Your task to perform on an android device: View the shopping cart on target. Add "logitech g pro" to the cart on target Image 0: 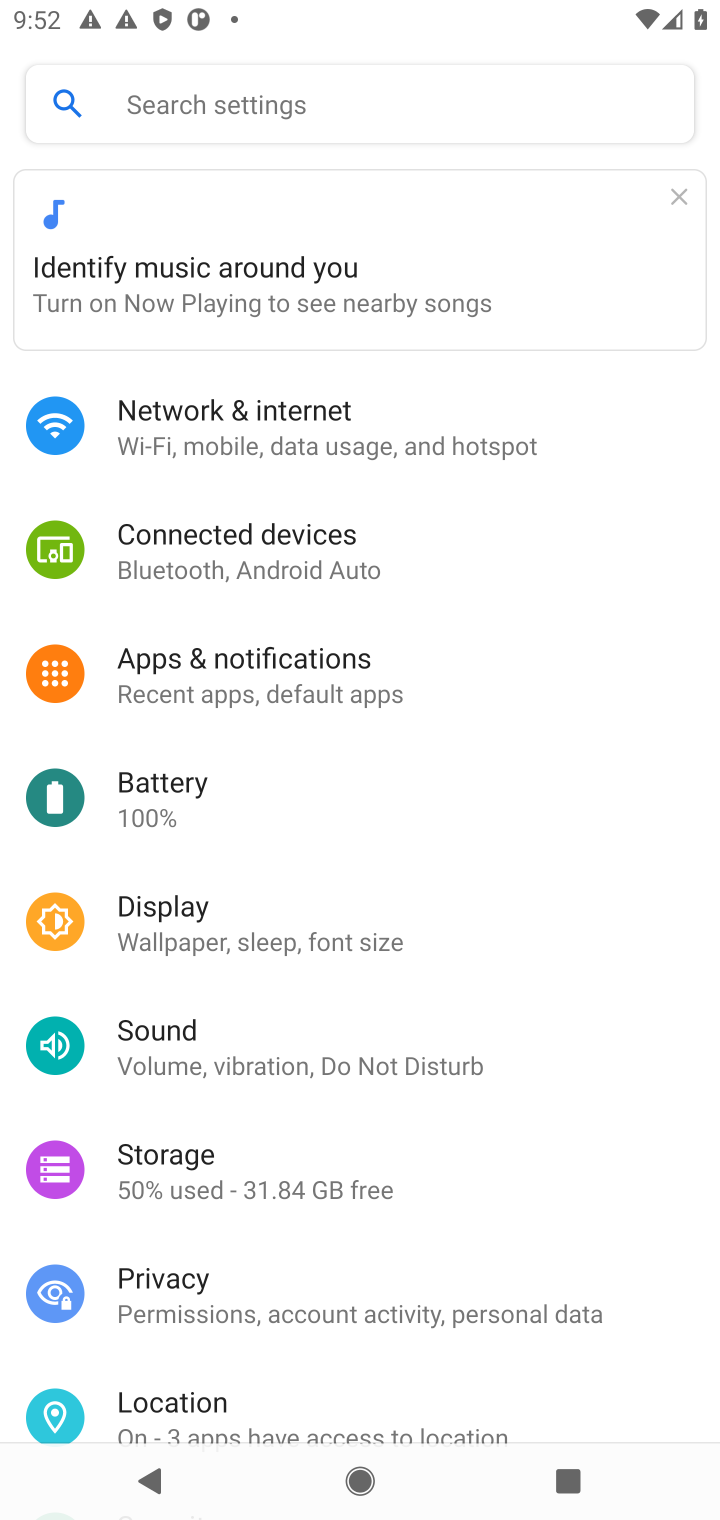
Step 0: press home button
Your task to perform on an android device: View the shopping cart on target. Add "logitech g pro" to the cart on target Image 1: 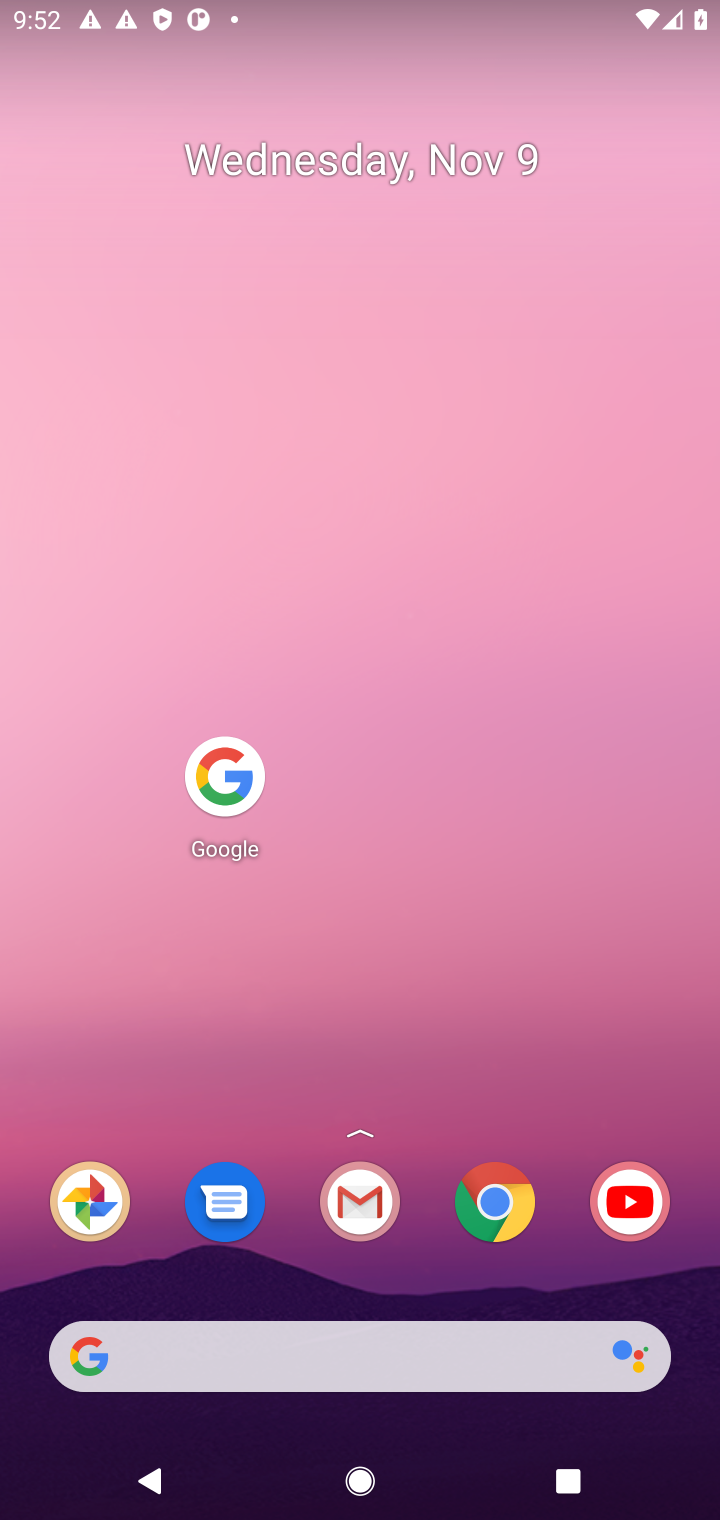
Step 1: click (231, 787)
Your task to perform on an android device: View the shopping cart on target. Add "logitech g pro" to the cart on target Image 2: 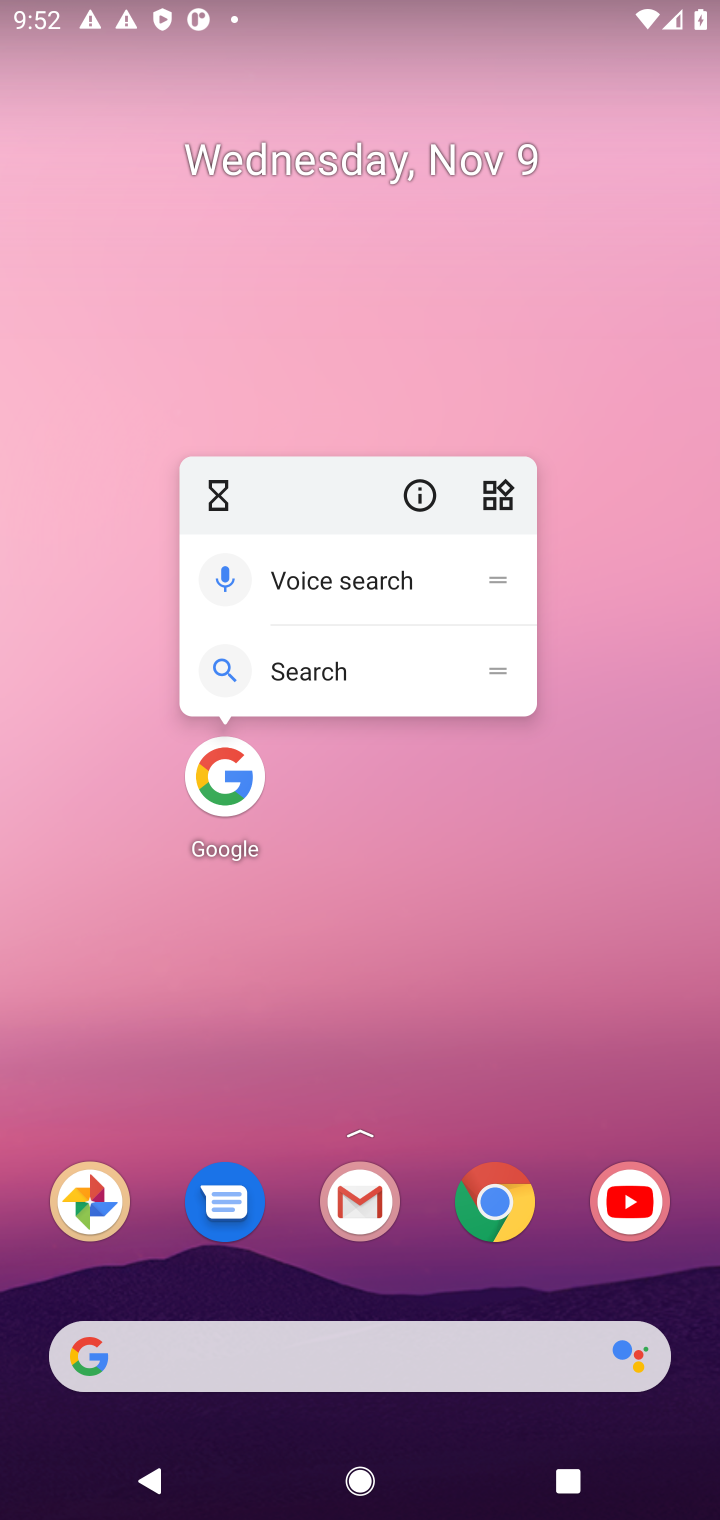
Step 2: click (231, 789)
Your task to perform on an android device: View the shopping cart on target. Add "logitech g pro" to the cart on target Image 3: 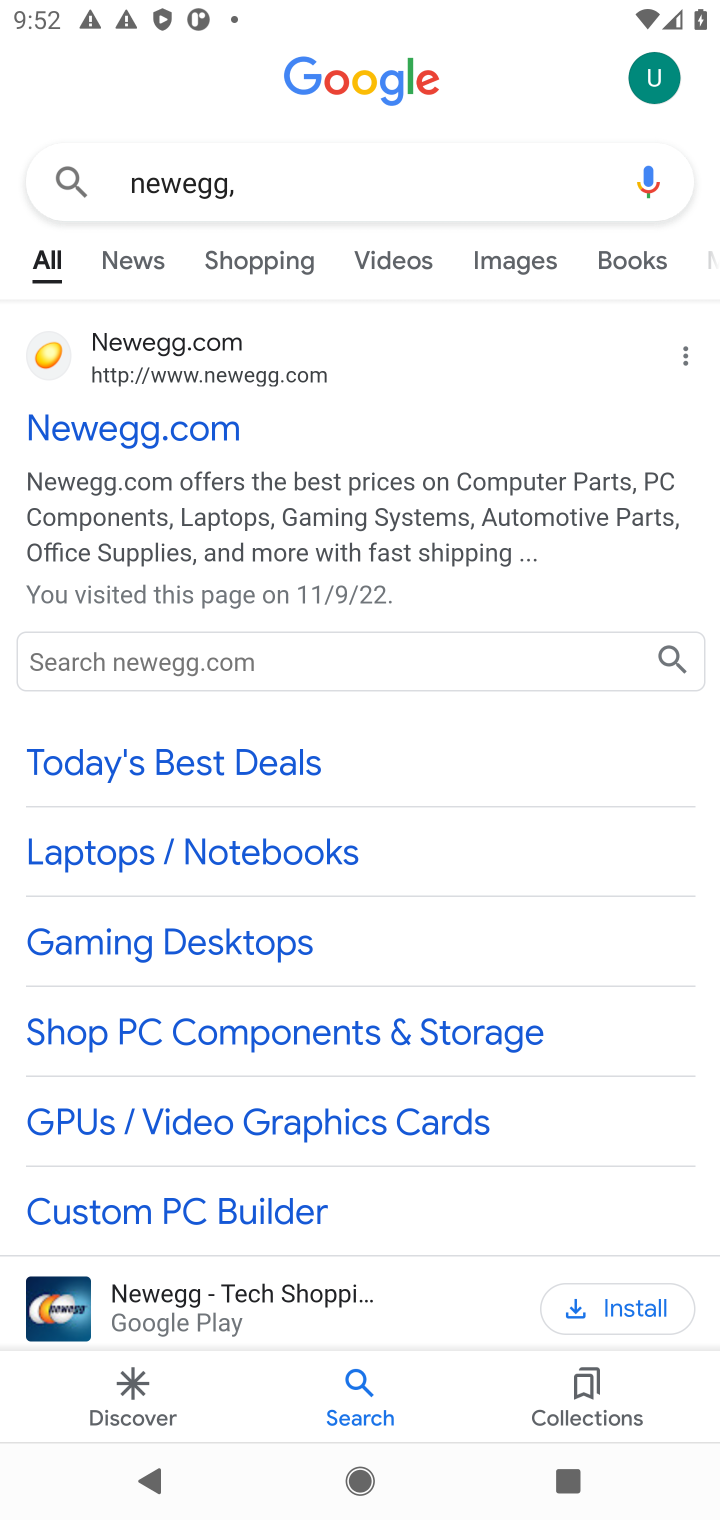
Step 3: click (270, 176)
Your task to perform on an android device: View the shopping cart on target. Add "logitech g pro" to the cart on target Image 4: 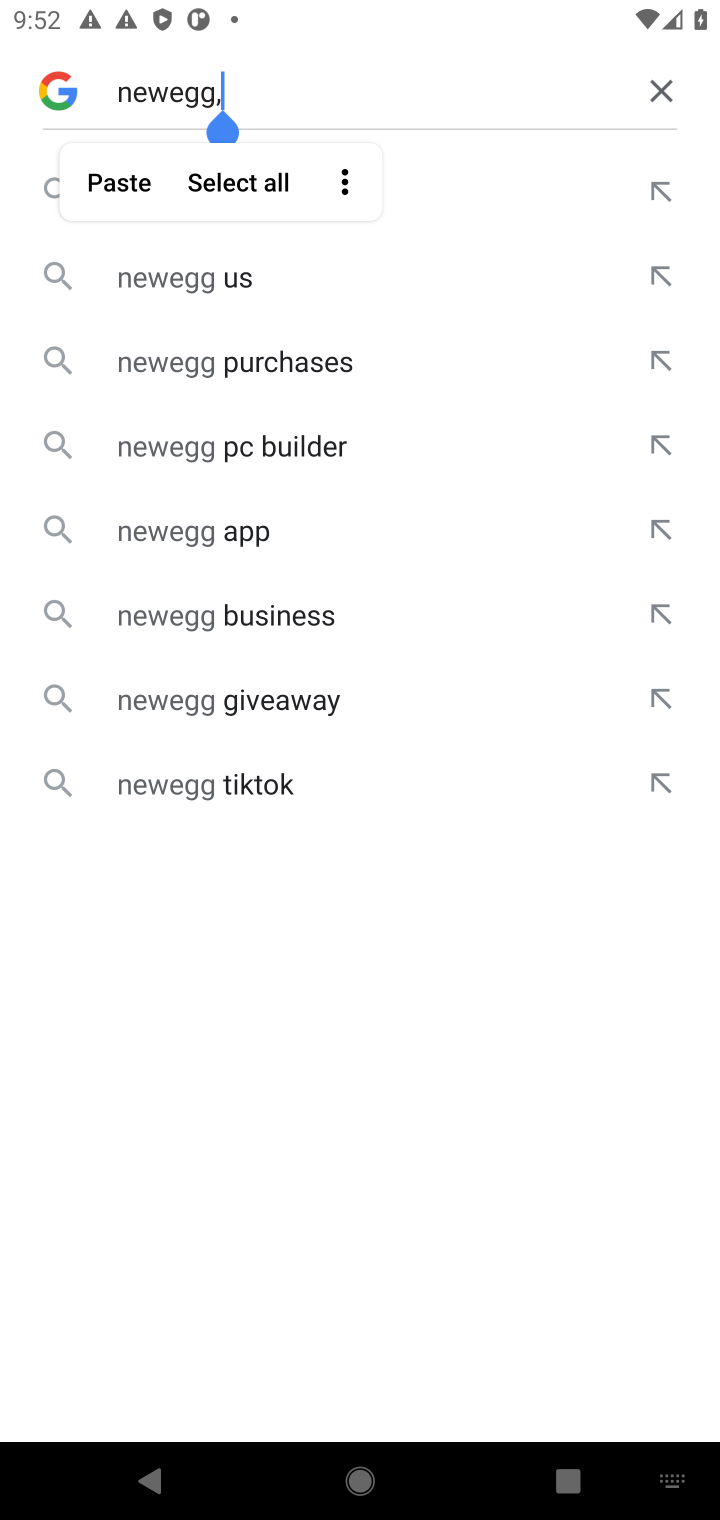
Step 4: click (669, 78)
Your task to perform on an android device: View the shopping cart on target. Add "logitech g pro" to the cart on target Image 5: 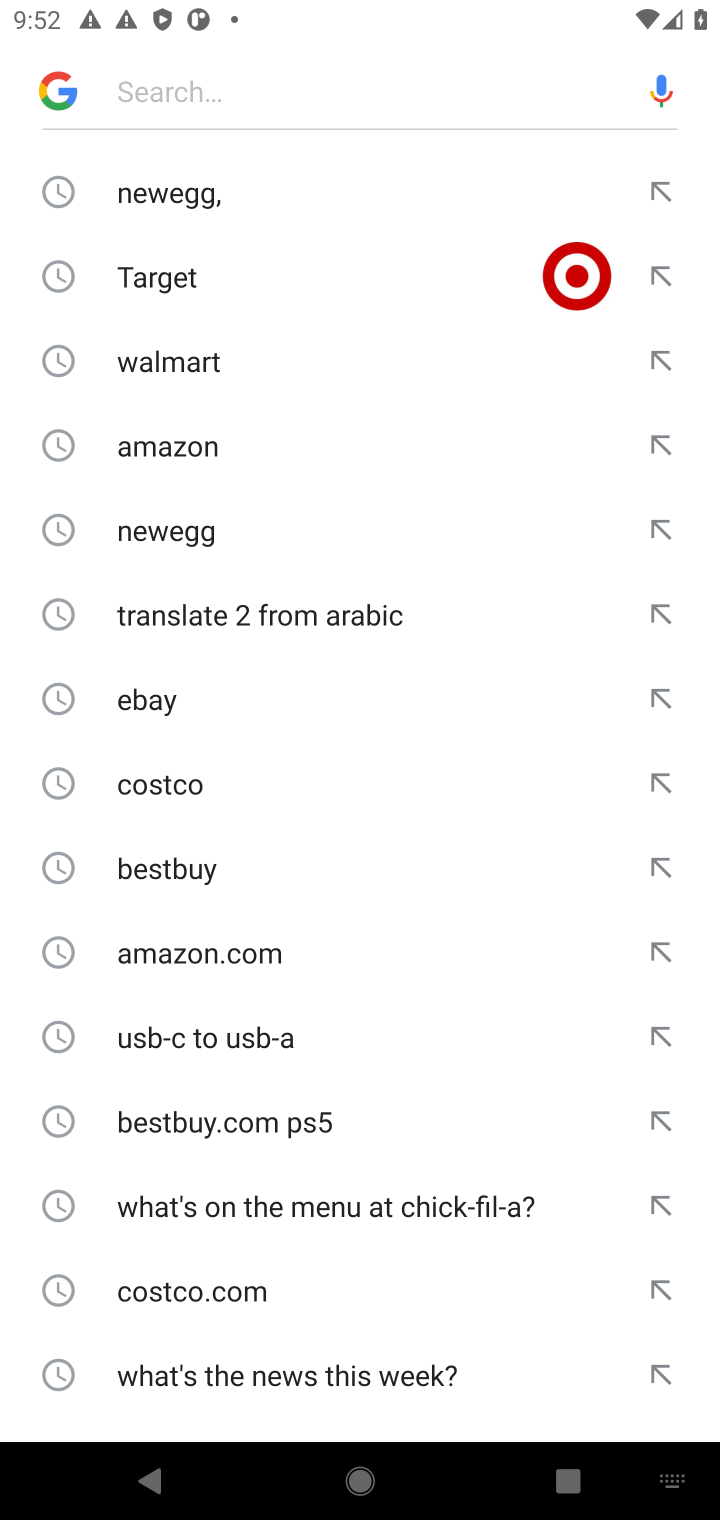
Step 5: click (161, 266)
Your task to perform on an android device: View the shopping cart on target. Add "logitech g pro" to the cart on target Image 6: 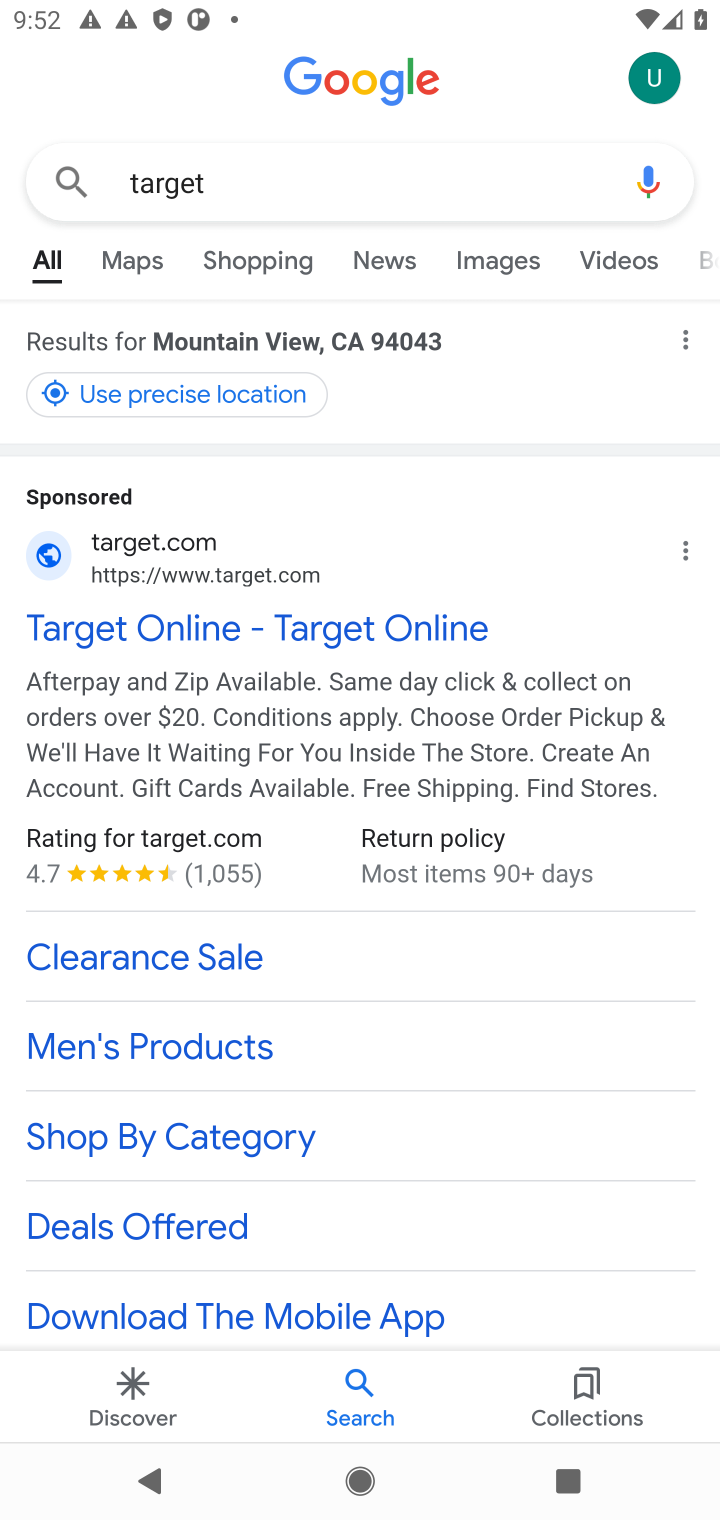
Step 6: click (188, 623)
Your task to perform on an android device: View the shopping cart on target. Add "logitech g pro" to the cart on target Image 7: 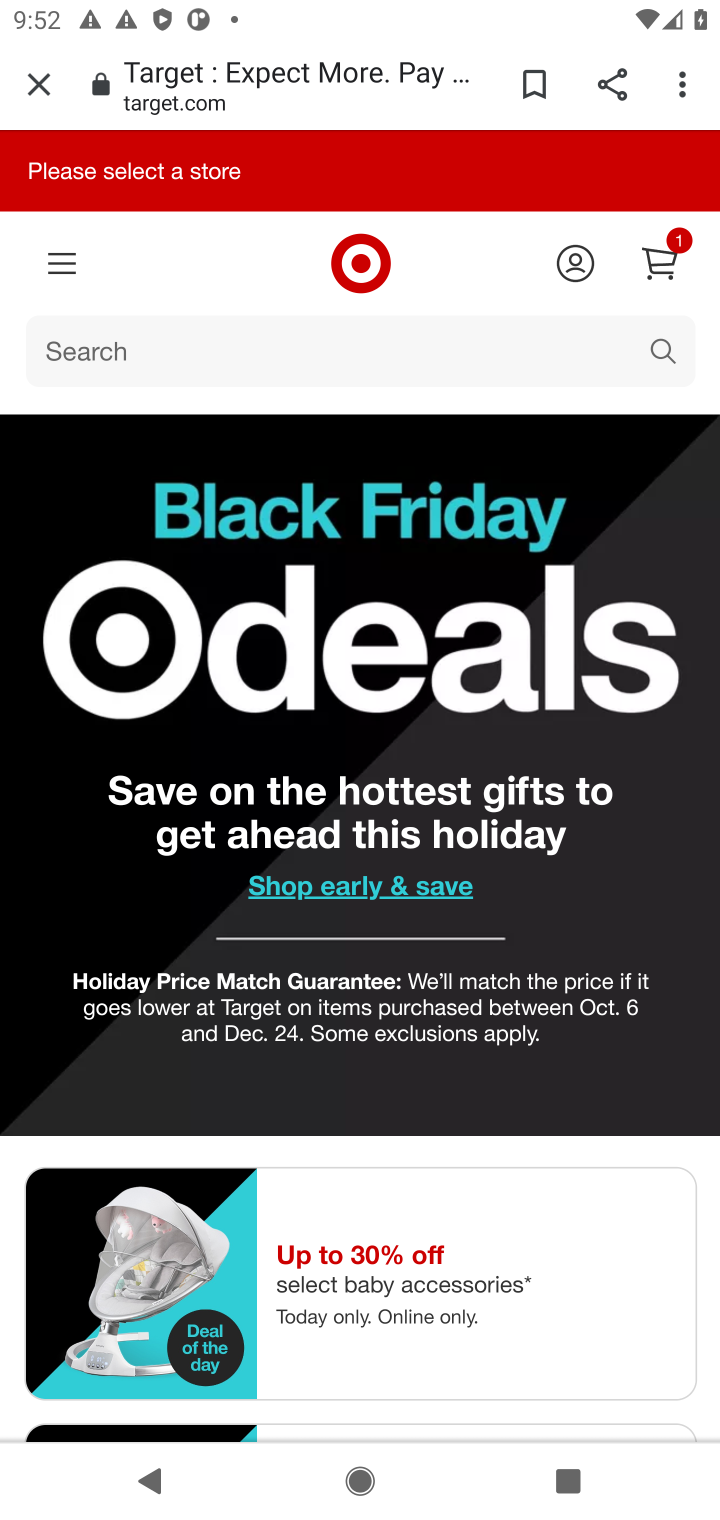
Step 7: click (652, 245)
Your task to perform on an android device: View the shopping cart on target. Add "logitech g pro" to the cart on target Image 8: 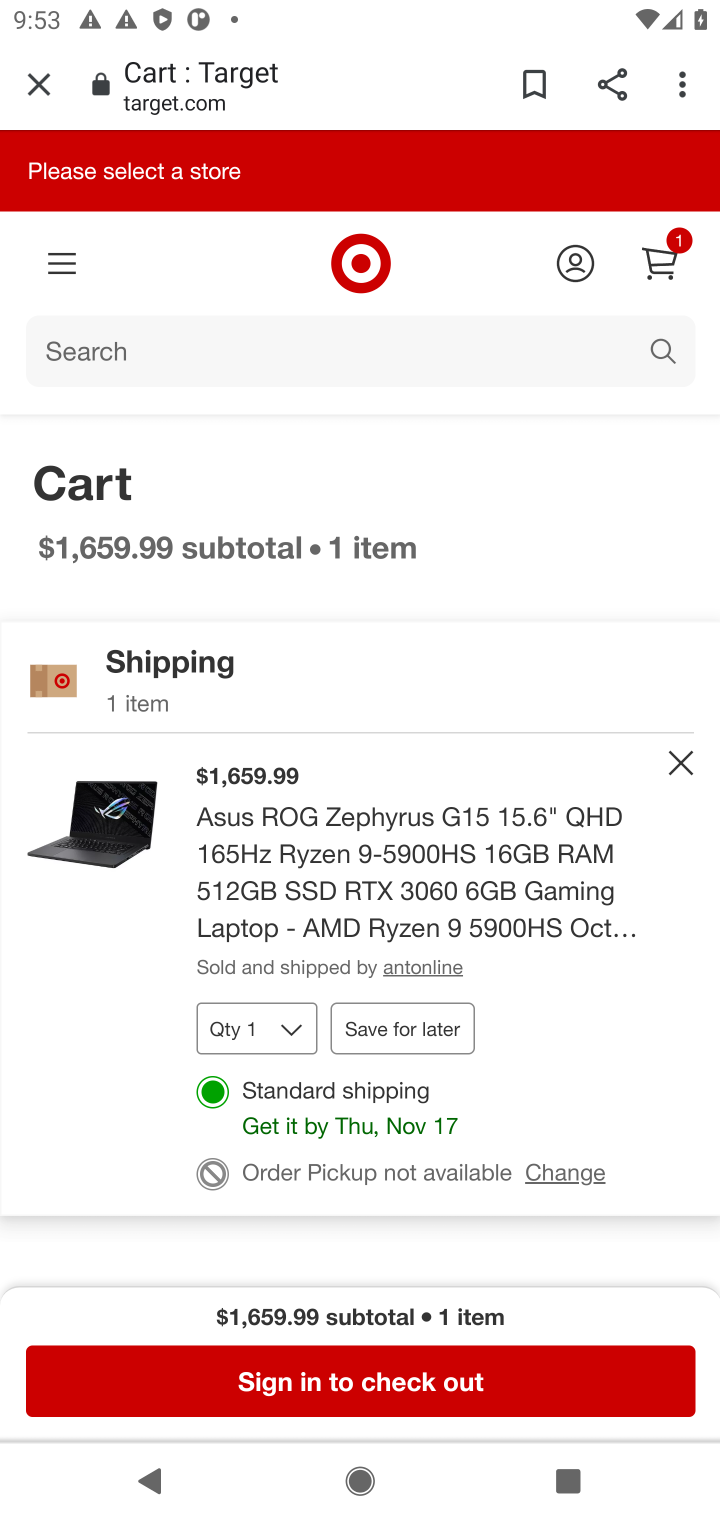
Step 8: click (677, 753)
Your task to perform on an android device: View the shopping cart on target. Add "logitech g pro" to the cart on target Image 9: 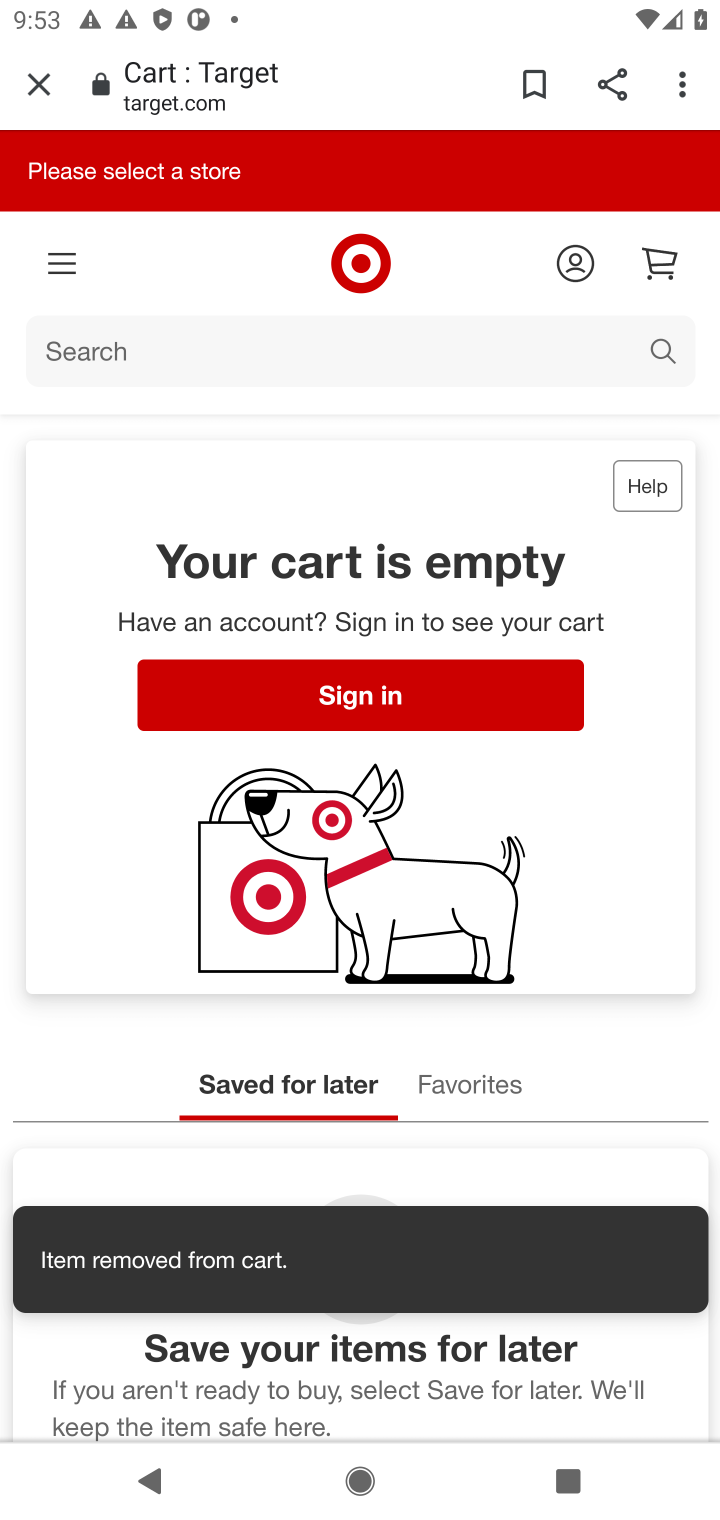
Step 9: click (130, 348)
Your task to perform on an android device: View the shopping cart on target. Add "logitech g pro" to the cart on target Image 10: 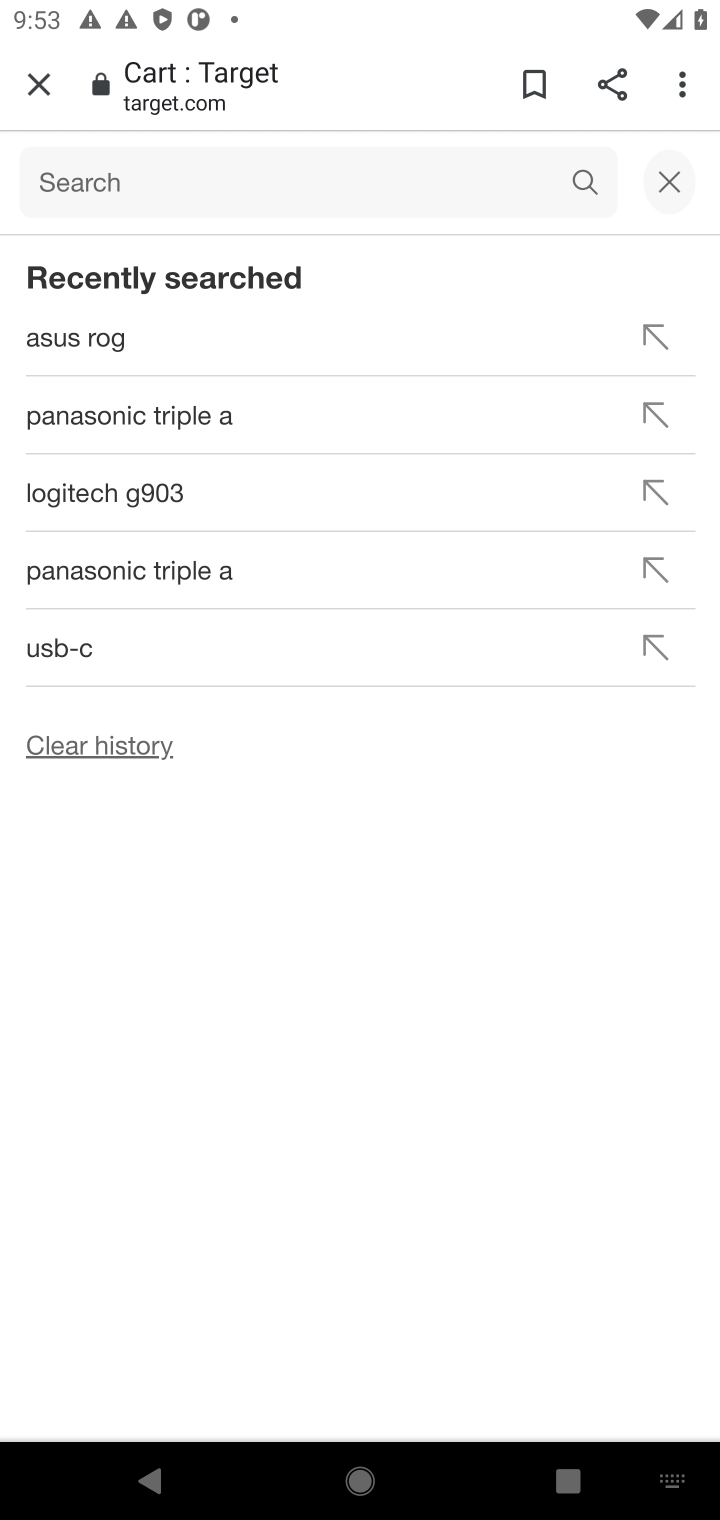
Step 10: type "logitech g pro"
Your task to perform on an android device: View the shopping cart on target. Add "logitech g pro" to the cart on target Image 11: 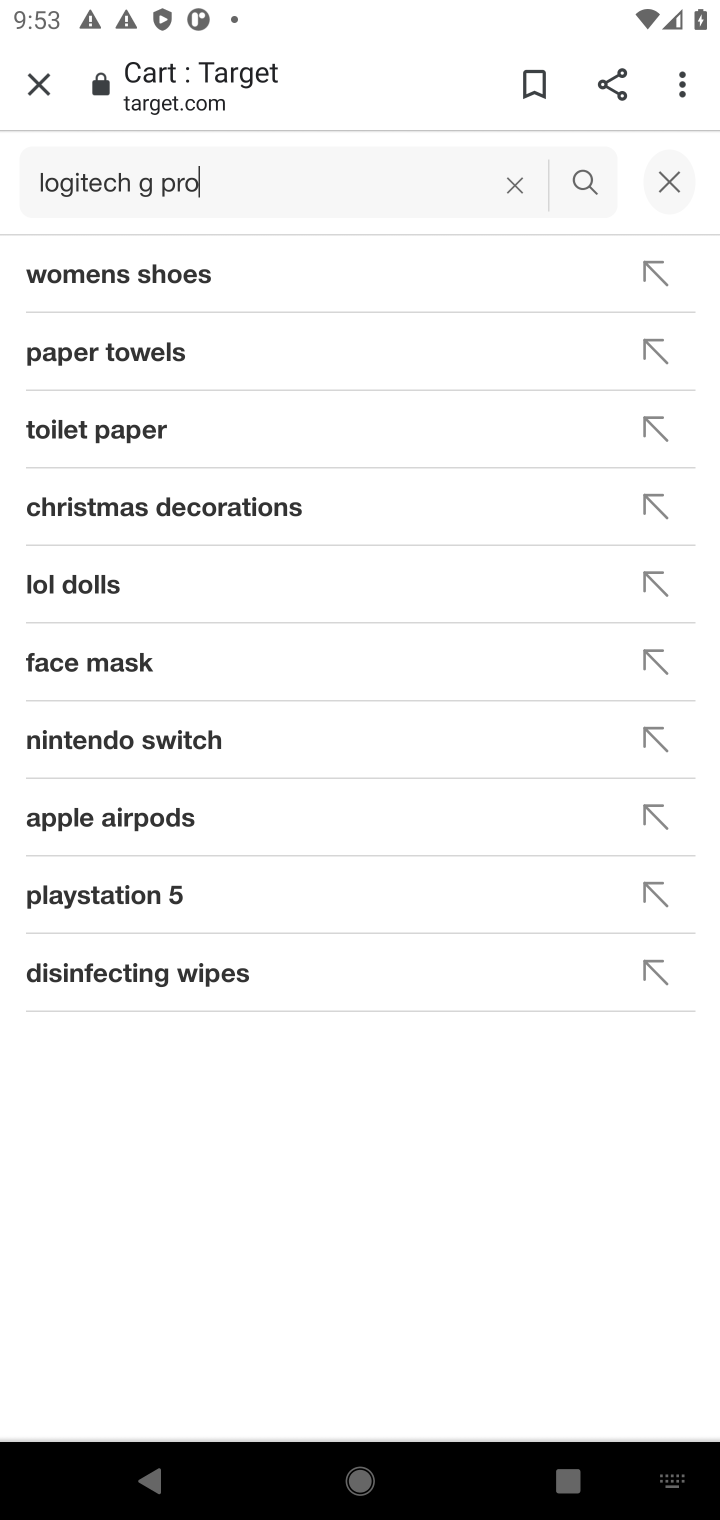
Step 11: press enter
Your task to perform on an android device: View the shopping cart on target. Add "logitech g pro" to the cart on target Image 12: 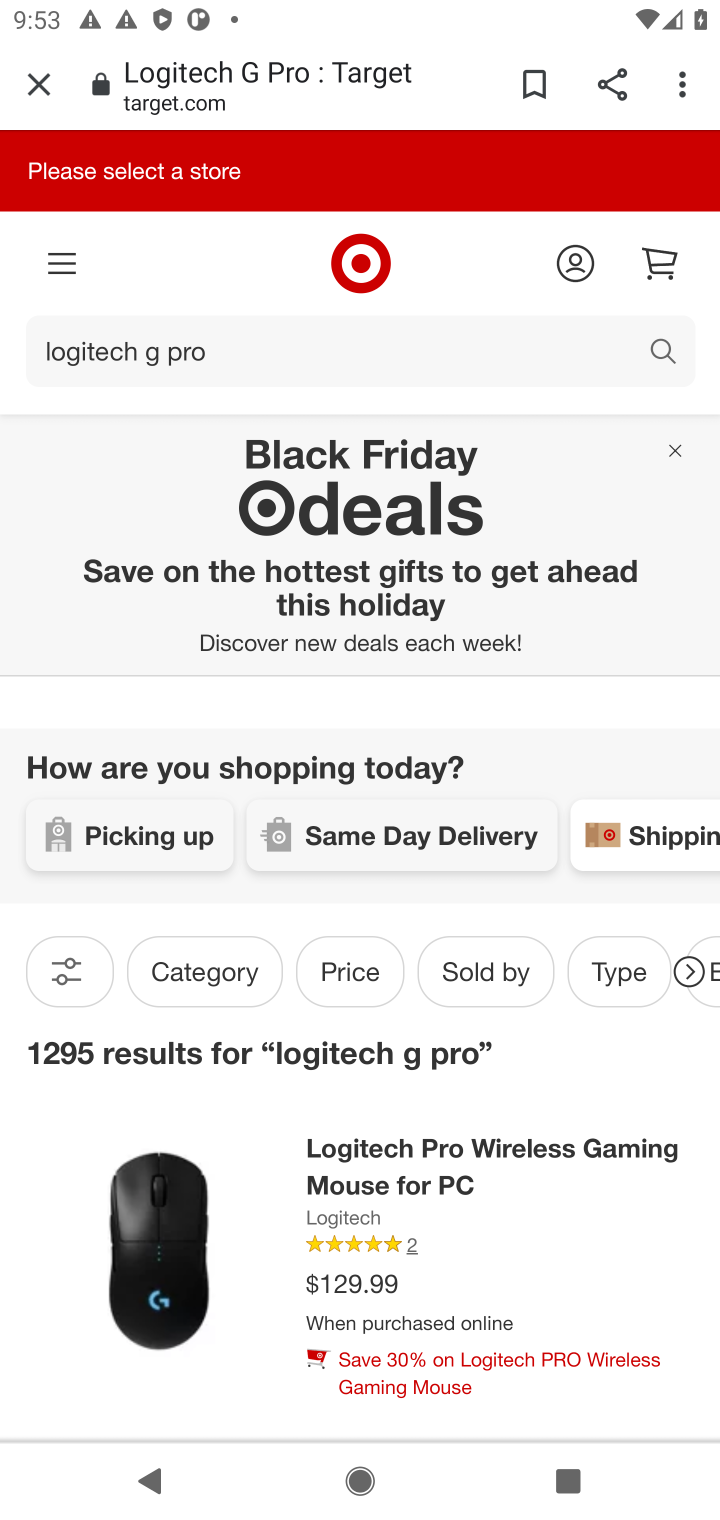
Step 12: drag from (298, 1038) to (541, 512)
Your task to perform on an android device: View the shopping cart on target. Add "logitech g pro" to the cart on target Image 13: 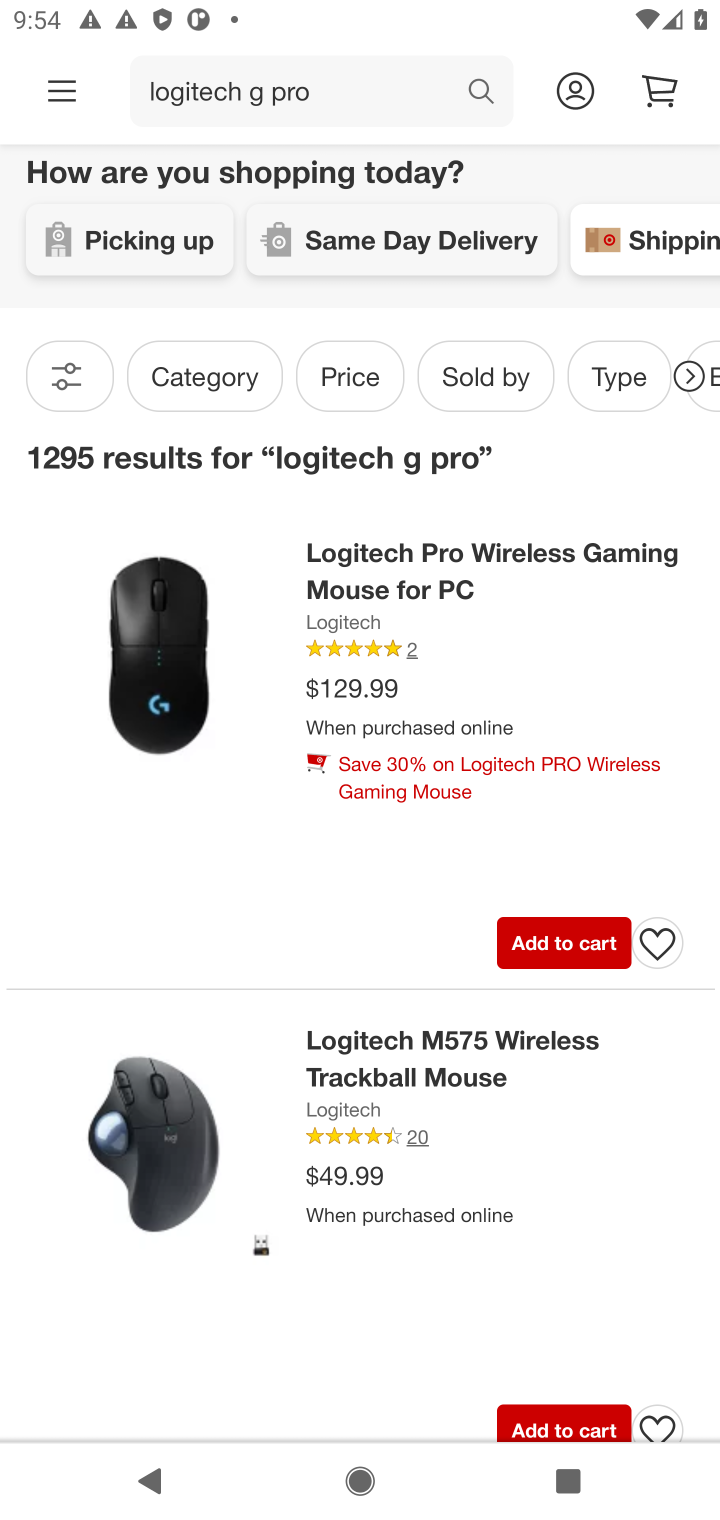
Step 13: click (567, 938)
Your task to perform on an android device: View the shopping cart on target. Add "logitech g pro" to the cart on target Image 14: 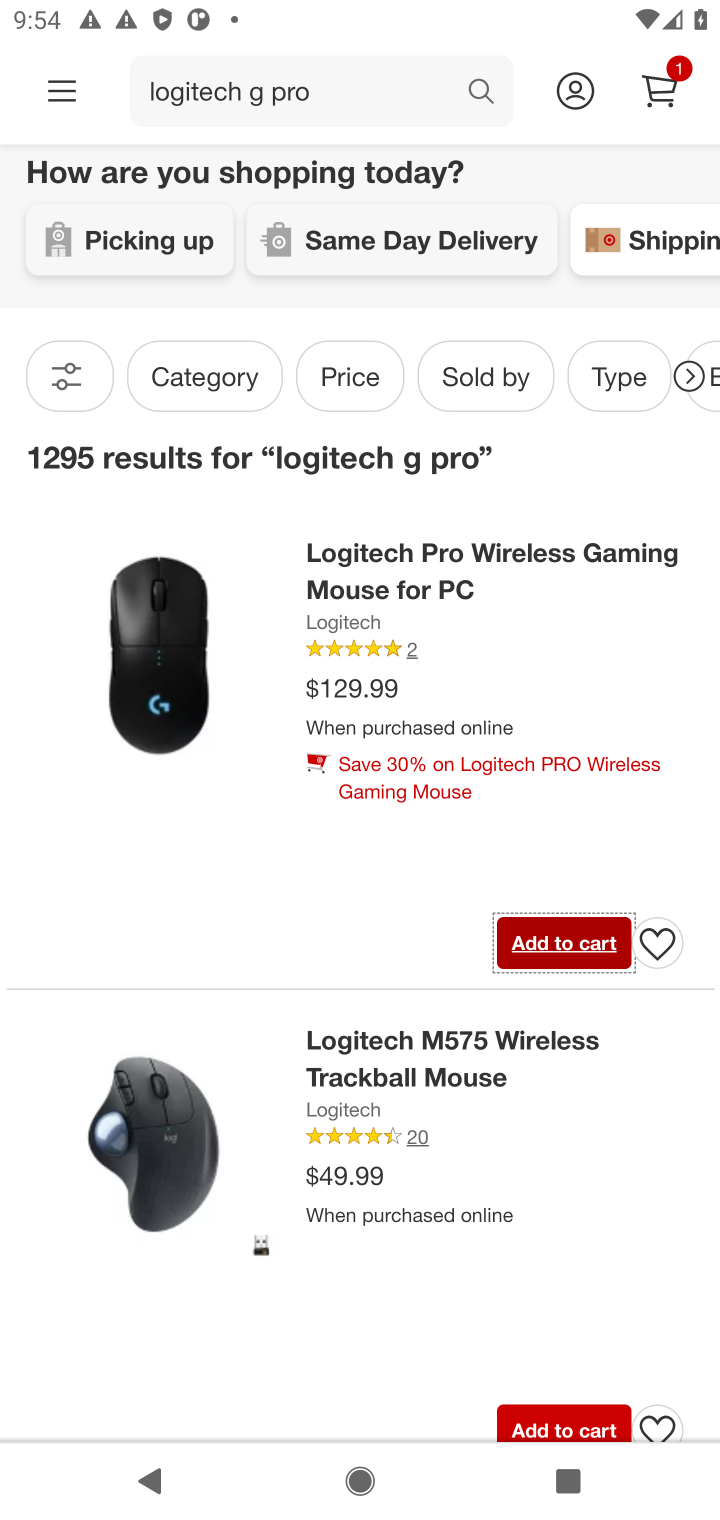
Step 14: click (668, 77)
Your task to perform on an android device: View the shopping cart on target. Add "logitech g pro" to the cart on target Image 15: 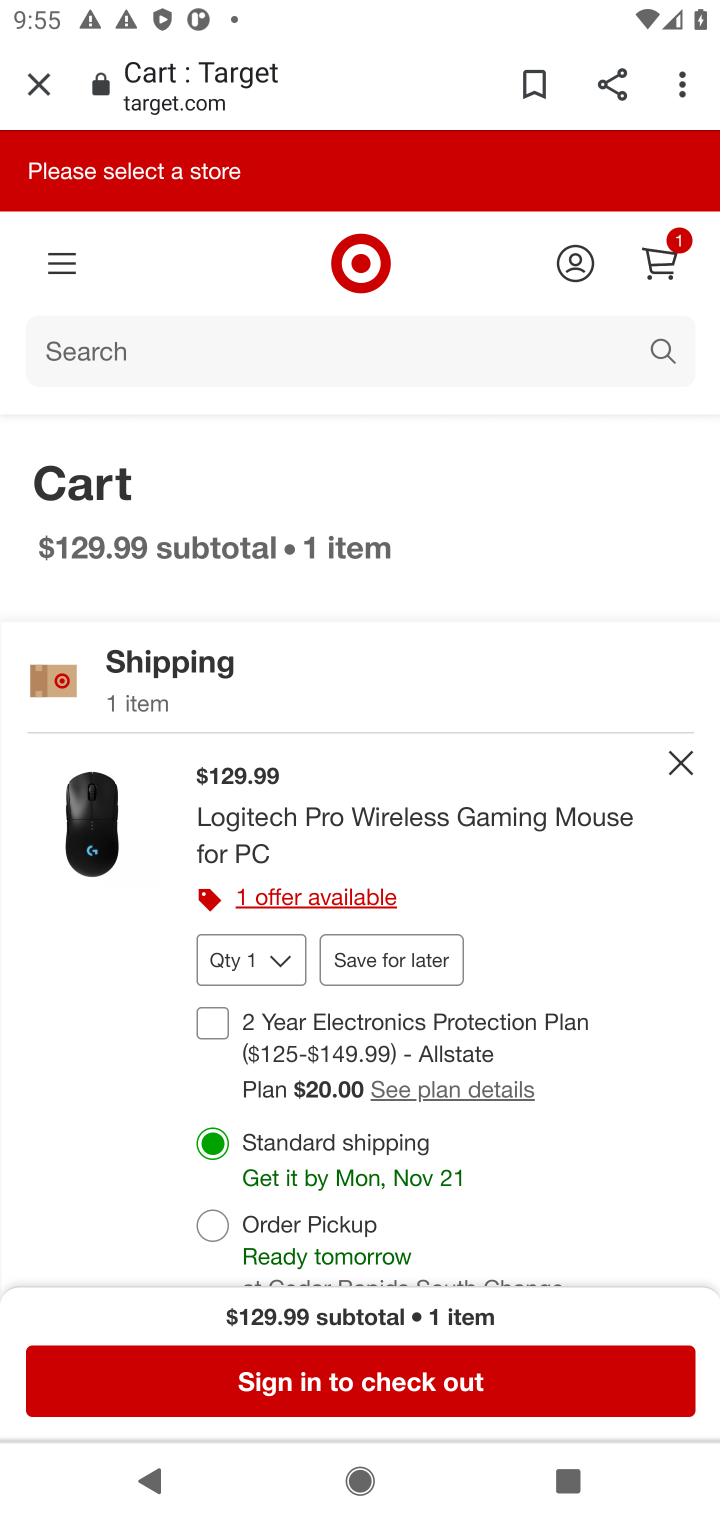
Step 15: task complete